Your task to perform on an android device: uninstall "Upside-Cash back on gas & food" Image 0: 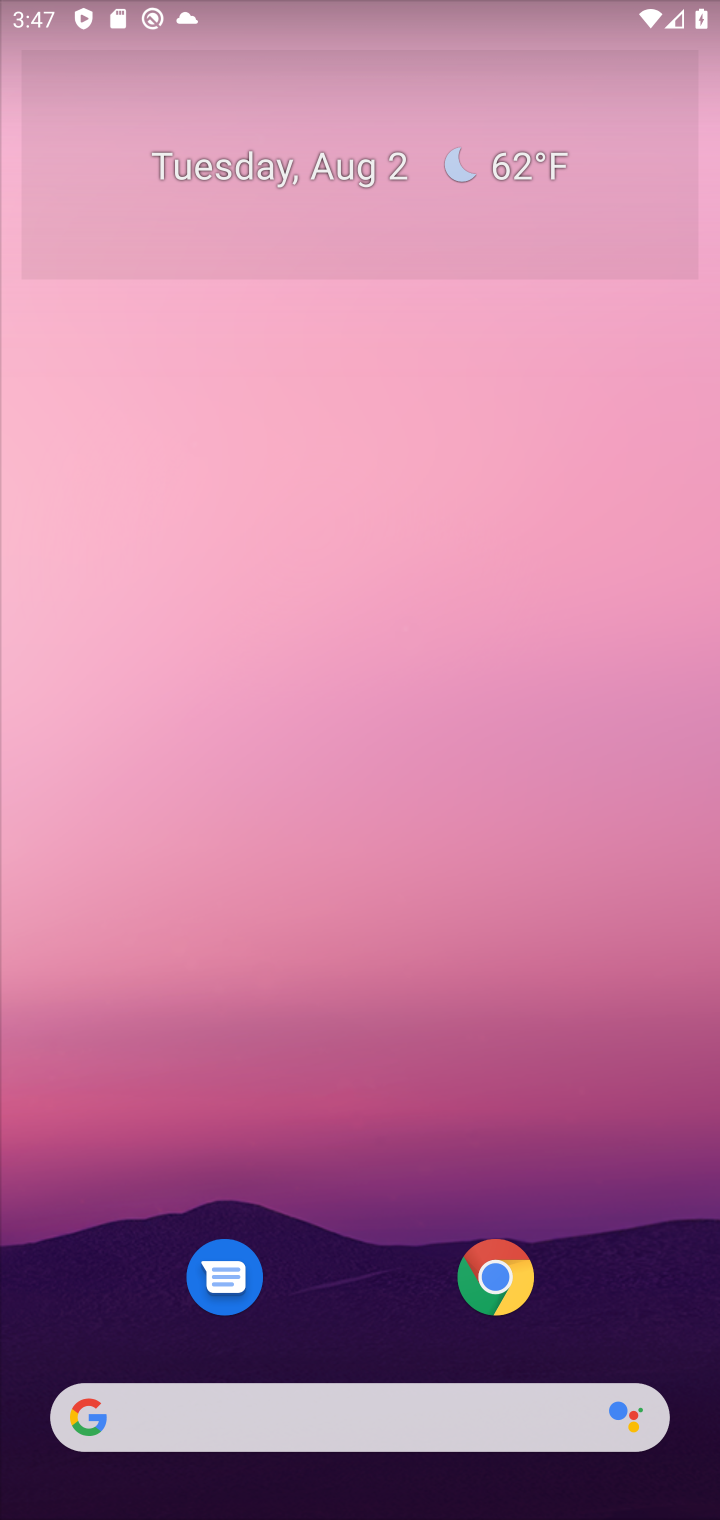
Step 0: drag from (356, 1124) to (389, 216)
Your task to perform on an android device: uninstall "Upside-Cash back on gas & food" Image 1: 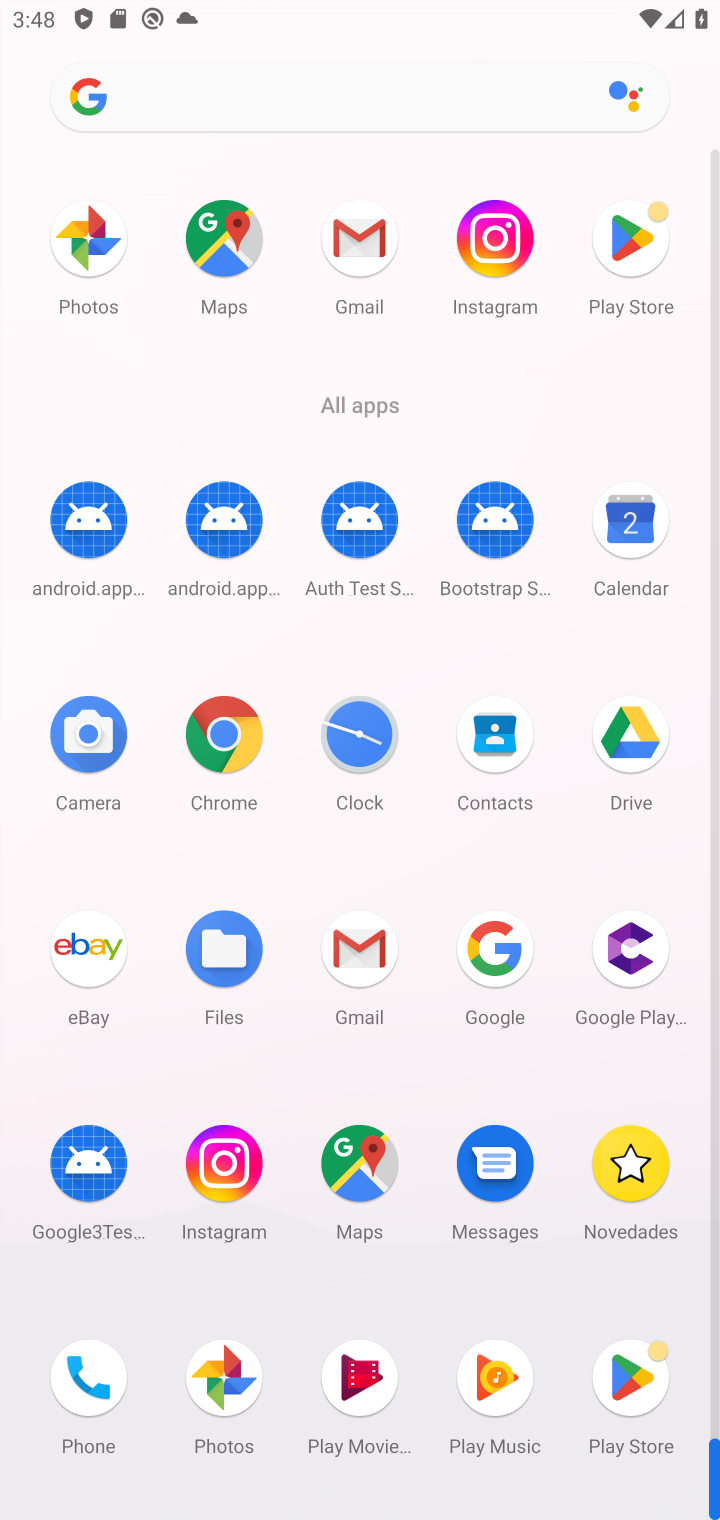
Step 1: click (640, 1370)
Your task to perform on an android device: uninstall "Upside-Cash back on gas & food" Image 2: 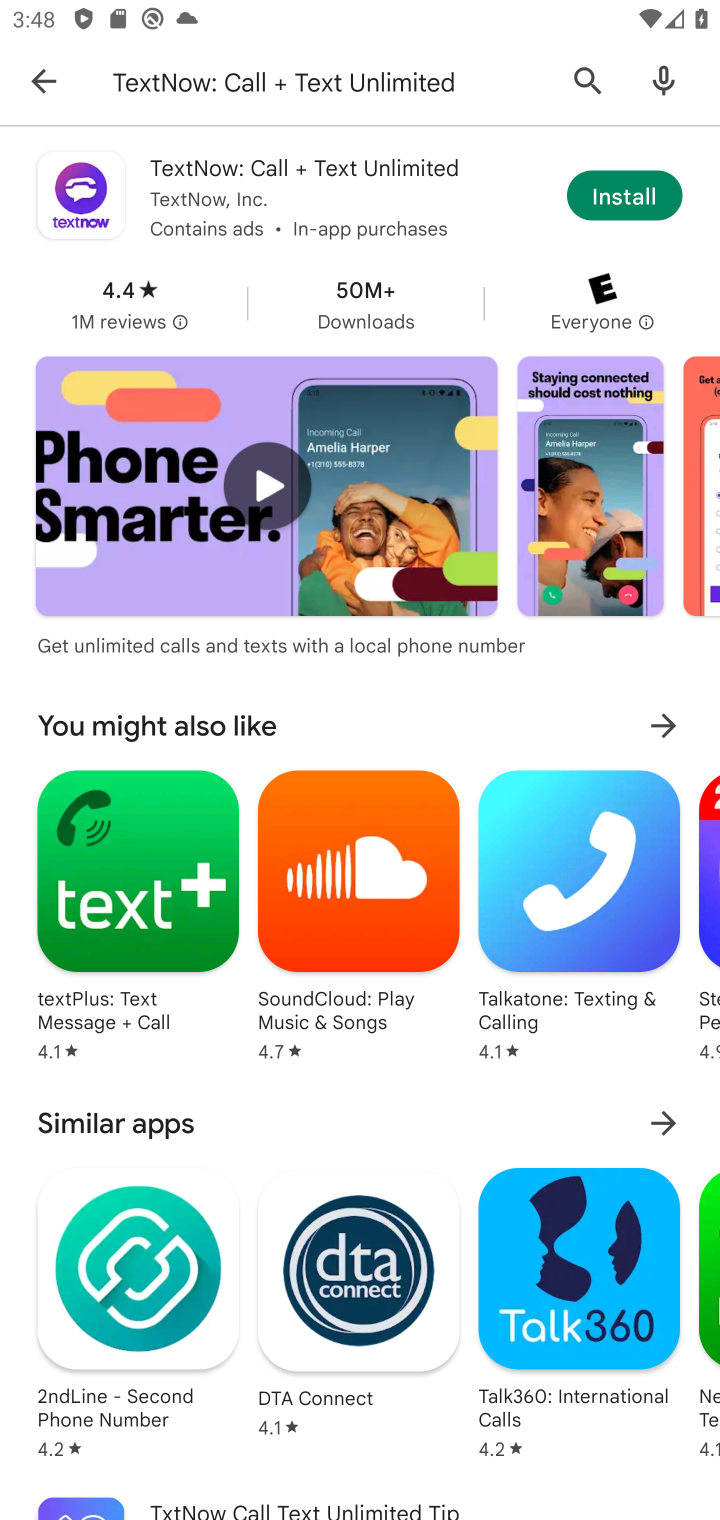
Step 2: click (296, 103)
Your task to perform on an android device: uninstall "Upside-Cash back on gas & food" Image 3: 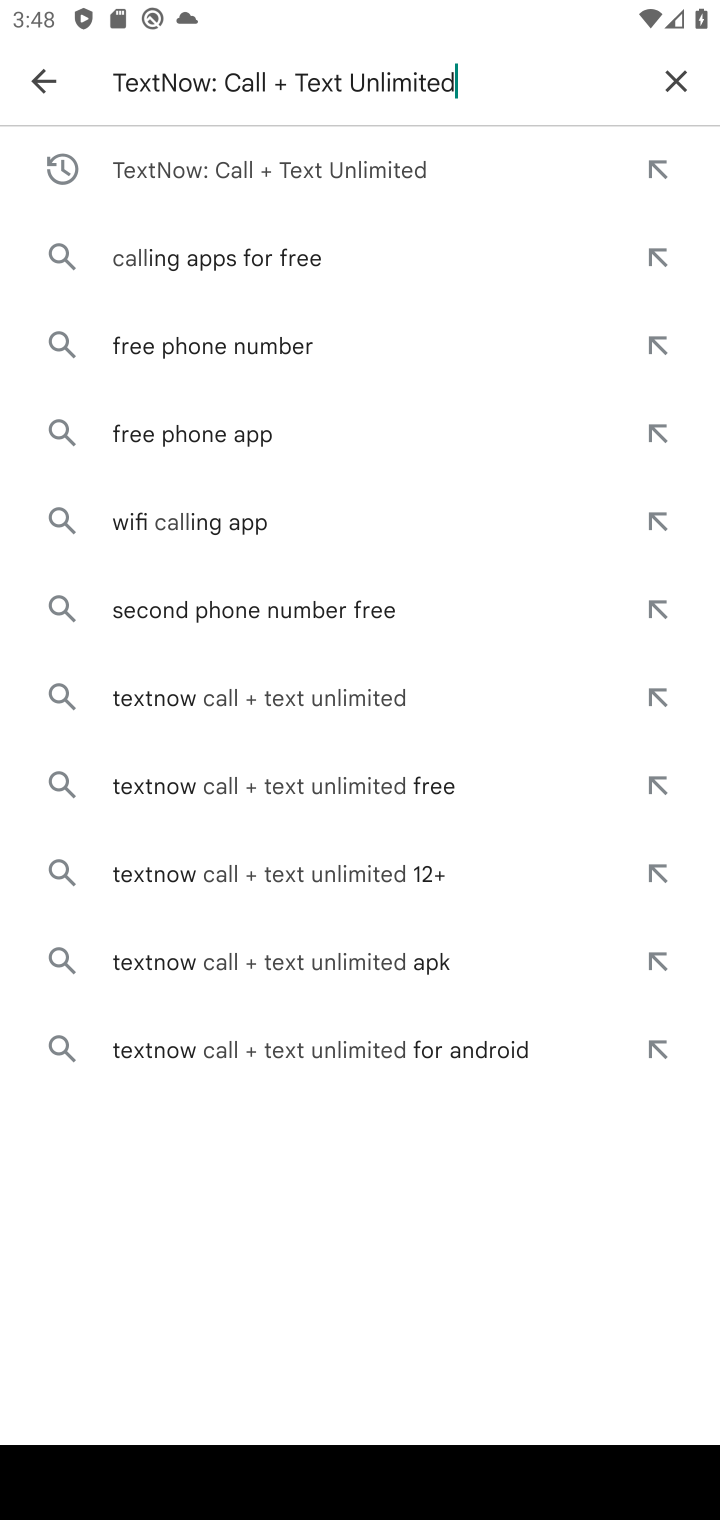
Step 3: click (688, 70)
Your task to perform on an android device: uninstall "Upside-Cash back on gas & food" Image 4: 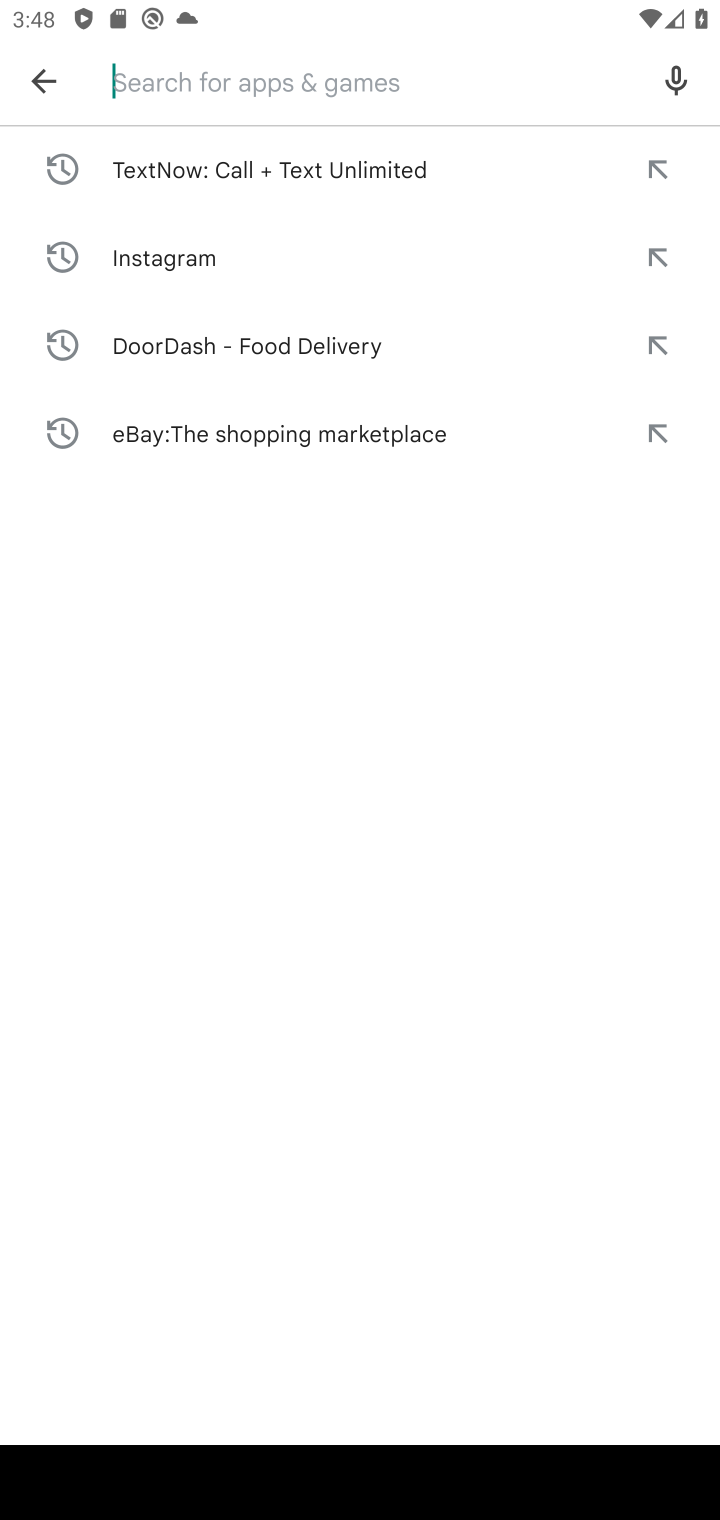
Step 4: type "Upside-Cash Back on gas & food"
Your task to perform on an android device: uninstall "Upside-Cash back on gas & food" Image 5: 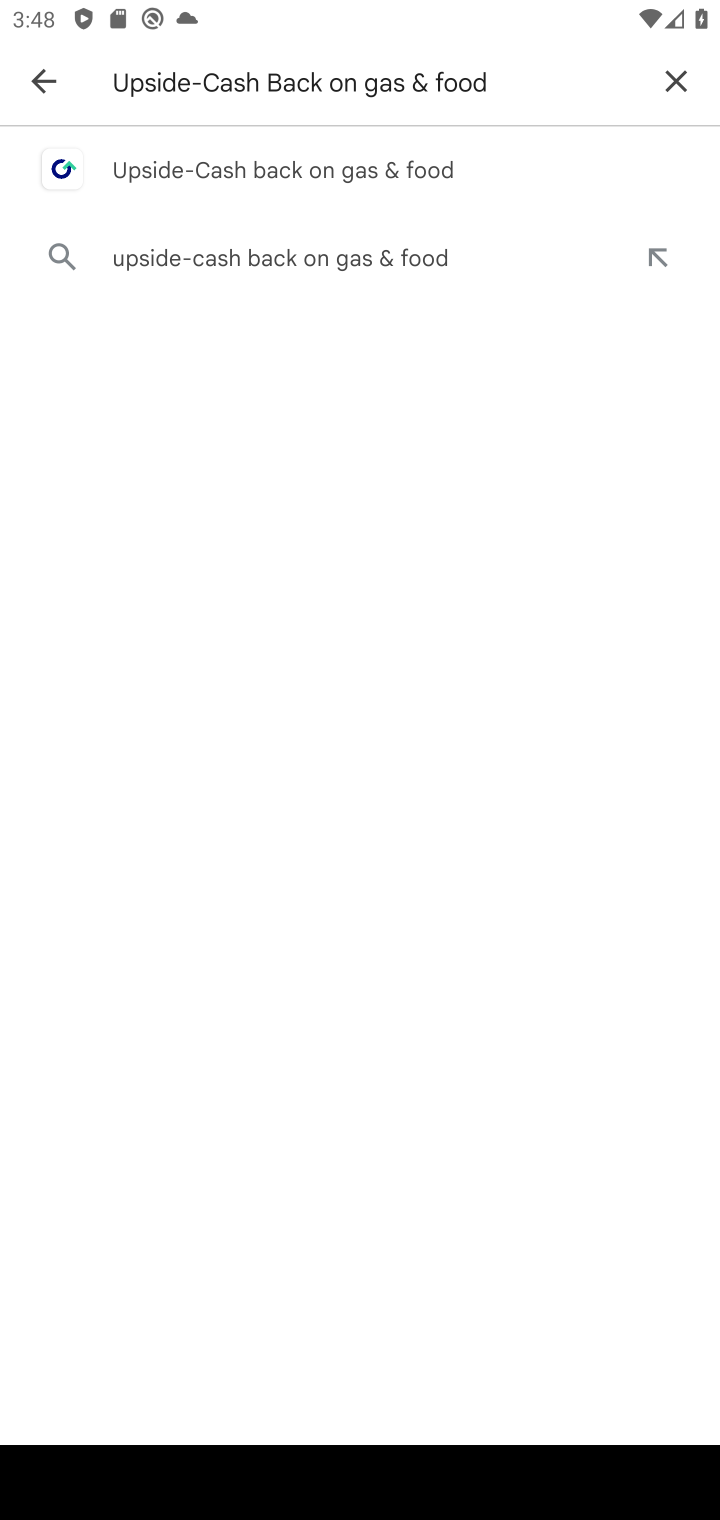
Step 5: click (422, 181)
Your task to perform on an android device: uninstall "Upside-Cash back on gas & food" Image 6: 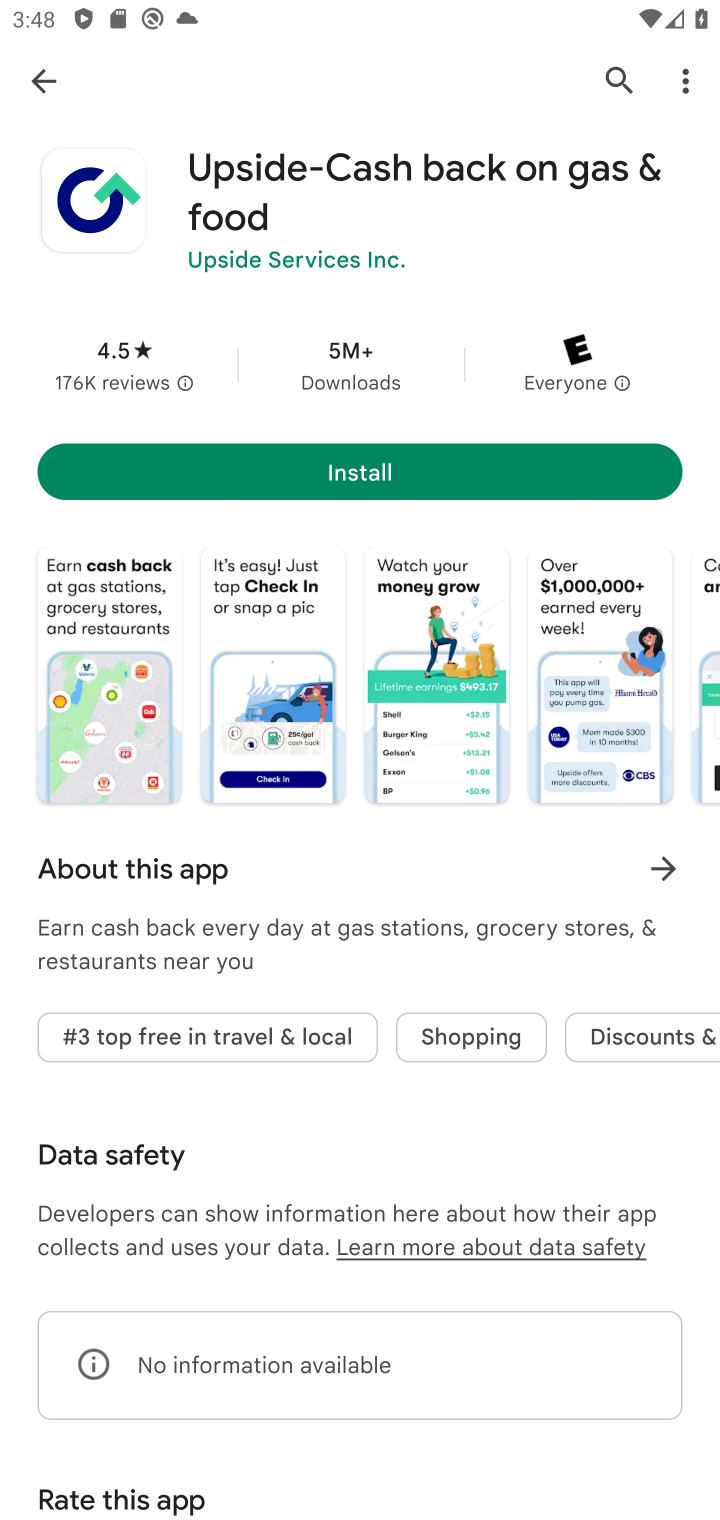
Step 6: task complete